Your task to perform on an android device: Open settings Image 0: 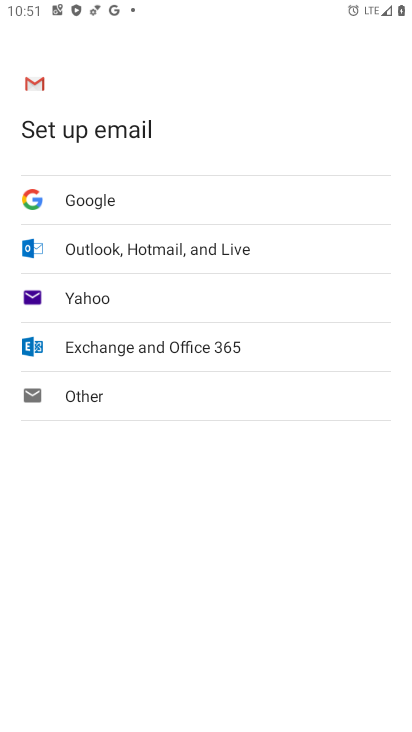
Step 0: press home button
Your task to perform on an android device: Open settings Image 1: 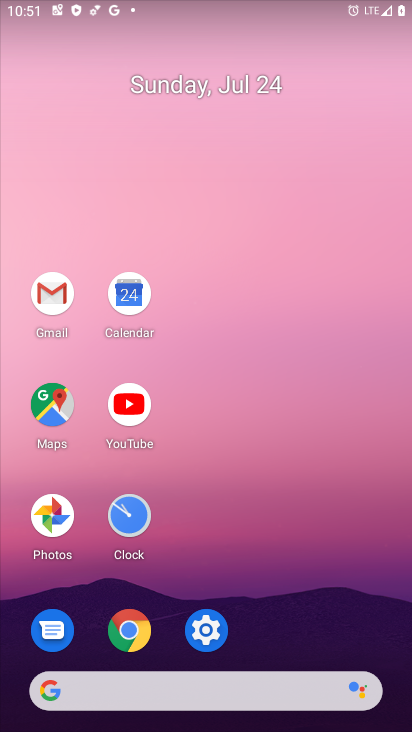
Step 1: click (192, 634)
Your task to perform on an android device: Open settings Image 2: 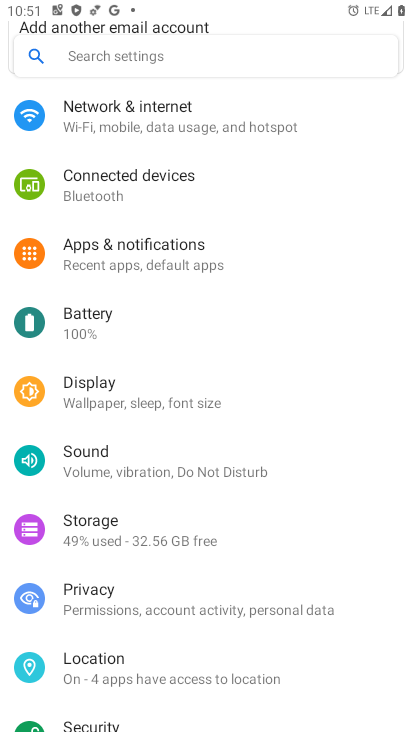
Step 2: task complete